Your task to perform on an android device: Search for pizza restaurants on Maps Image 0: 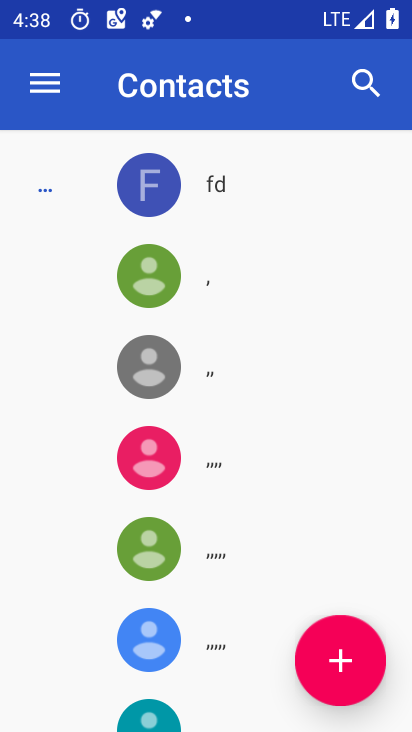
Step 0: press home button
Your task to perform on an android device: Search for pizza restaurants on Maps Image 1: 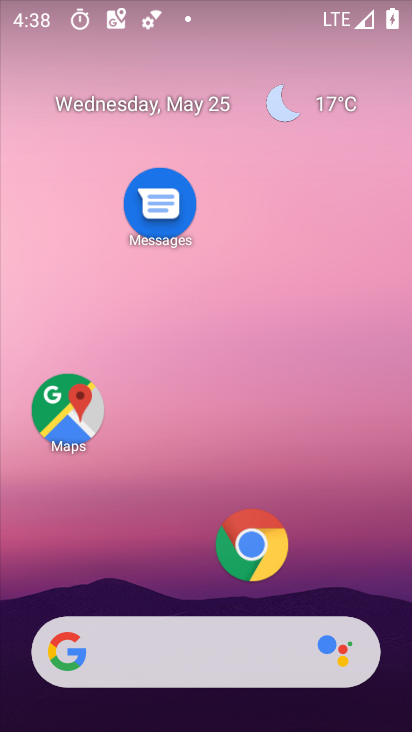
Step 1: click (99, 410)
Your task to perform on an android device: Search for pizza restaurants on Maps Image 2: 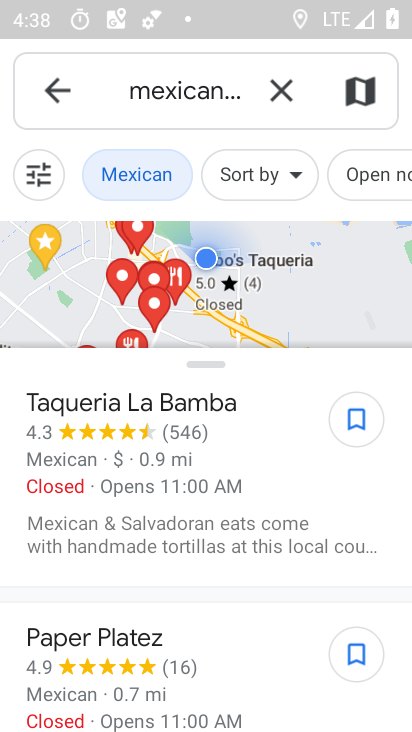
Step 2: click (285, 91)
Your task to perform on an android device: Search for pizza restaurants on Maps Image 3: 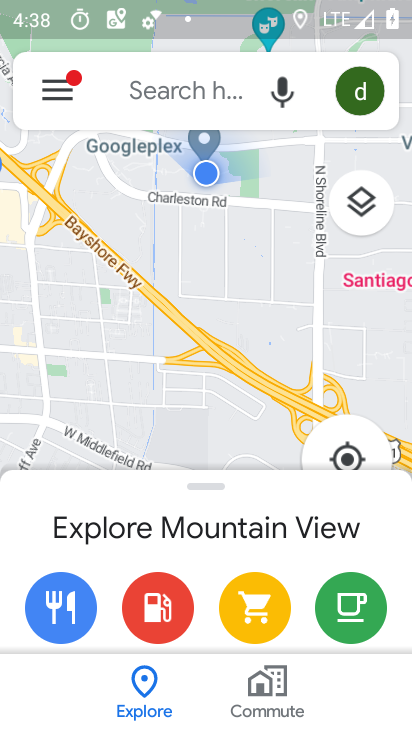
Step 3: click (224, 96)
Your task to perform on an android device: Search for pizza restaurants on Maps Image 4: 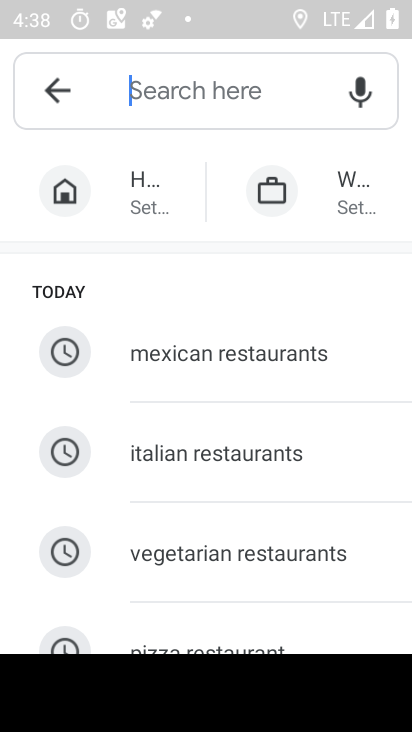
Step 4: drag from (283, 613) to (296, 361)
Your task to perform on an android device: Search for pizza restaurants on Maps Image 5: 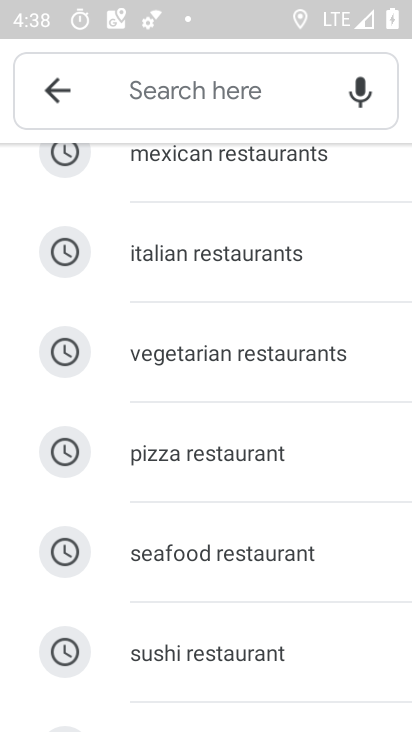
Step 5: click (235, 462)
Your task to perform on an android device: Search for pizza restaurants on Maps Image 6: 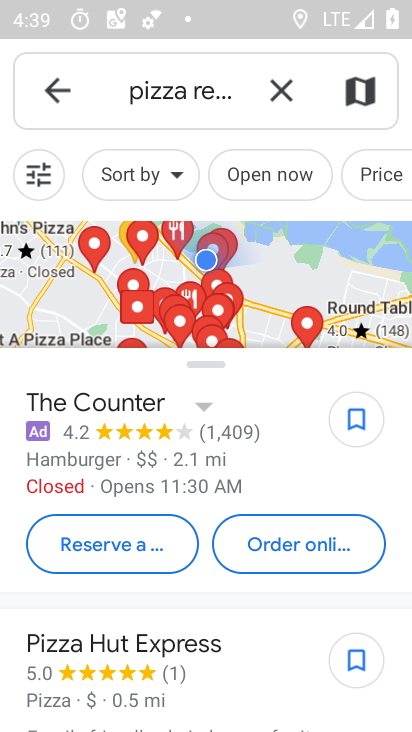
Step 6: task complete